Your task to perform on an android device: Open wifi settings Image 0: 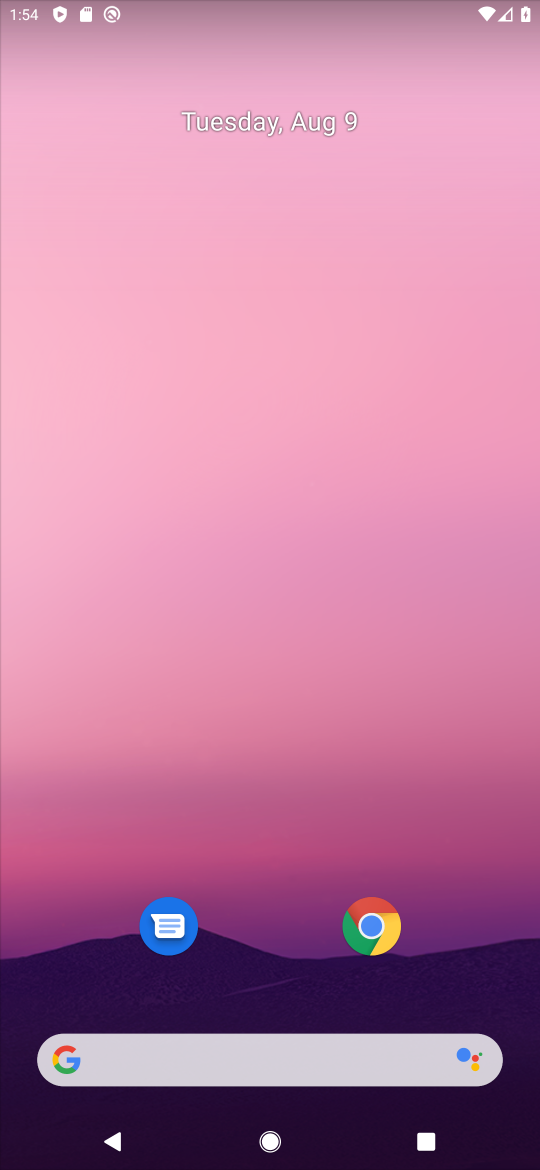
Step 0: press home button
Your task to perform on an android device: Open wifi settings Image 1: 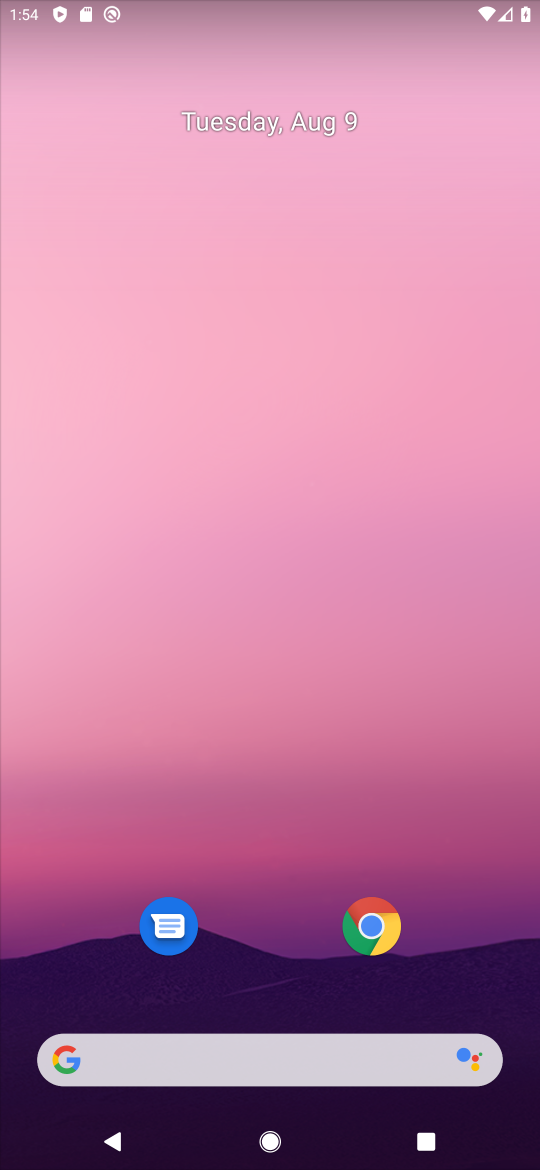
Step 1: drag from (259, 844) to (303, 204)
Your task to perform on an android device: Open wifi settings Image 2: 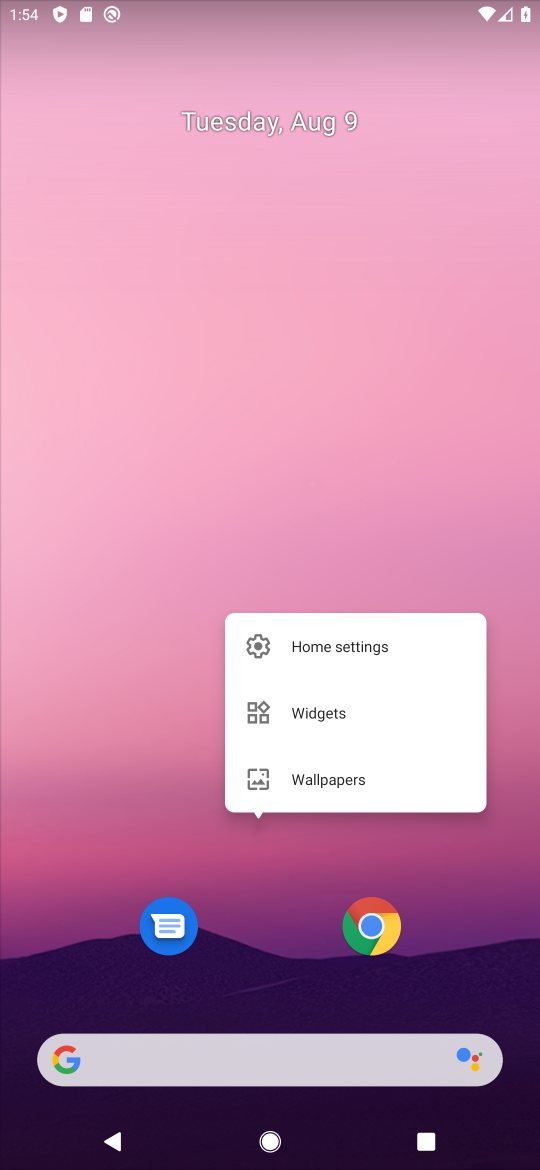
Step 2: click (168, 545)
Your task to perform on an android device: Open wifi settings Image 3: 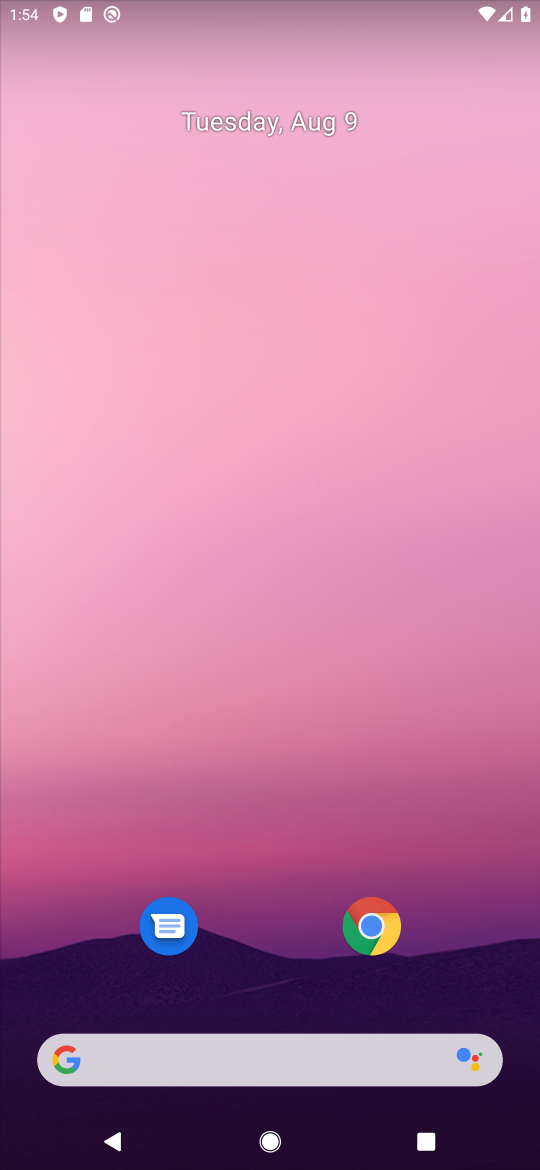
Step 3: drag from (264, 935) to (348, 51)
Your task to perform on an android device: Open wifi settings Image 4: 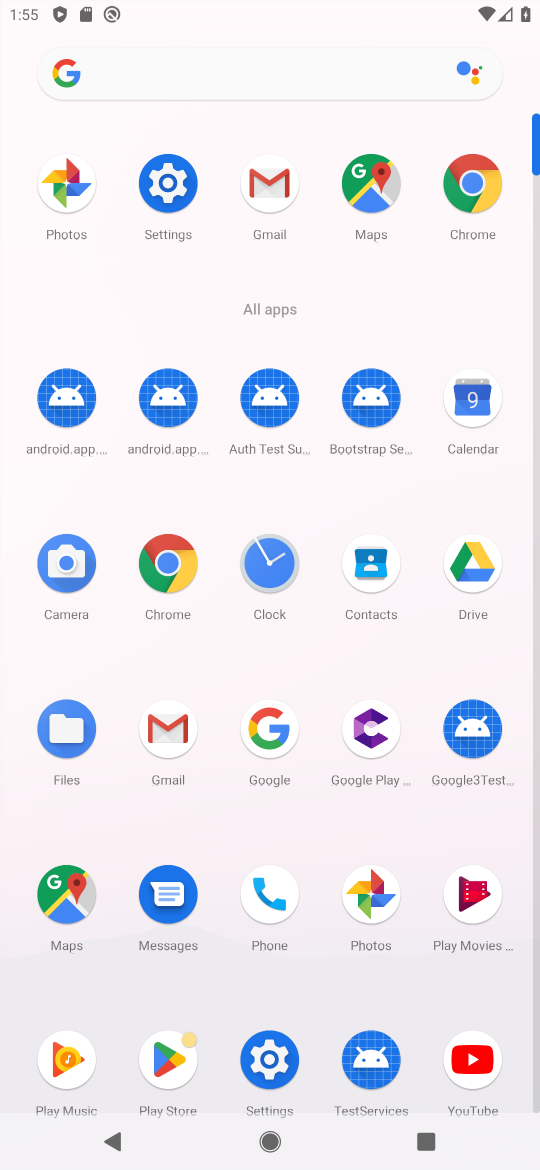
Step 4: drag from (485, 12) to (363, 580)
Your task to perform on an android device: Open wifi settings Image 5: 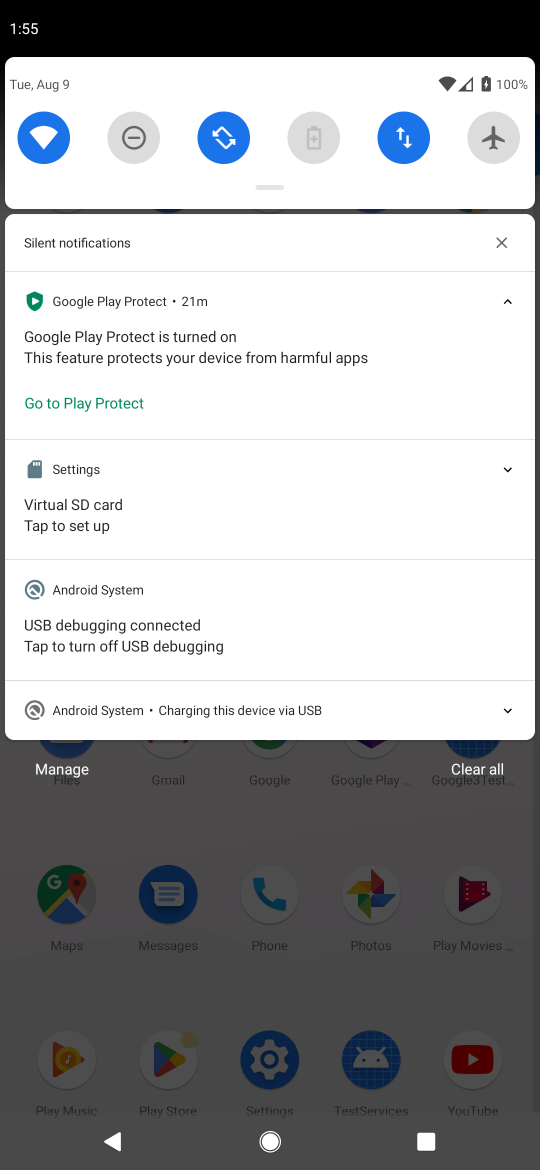
Step 5: click (39, 126)
Your task to perform on an android device: Open wifi settings Image 6: 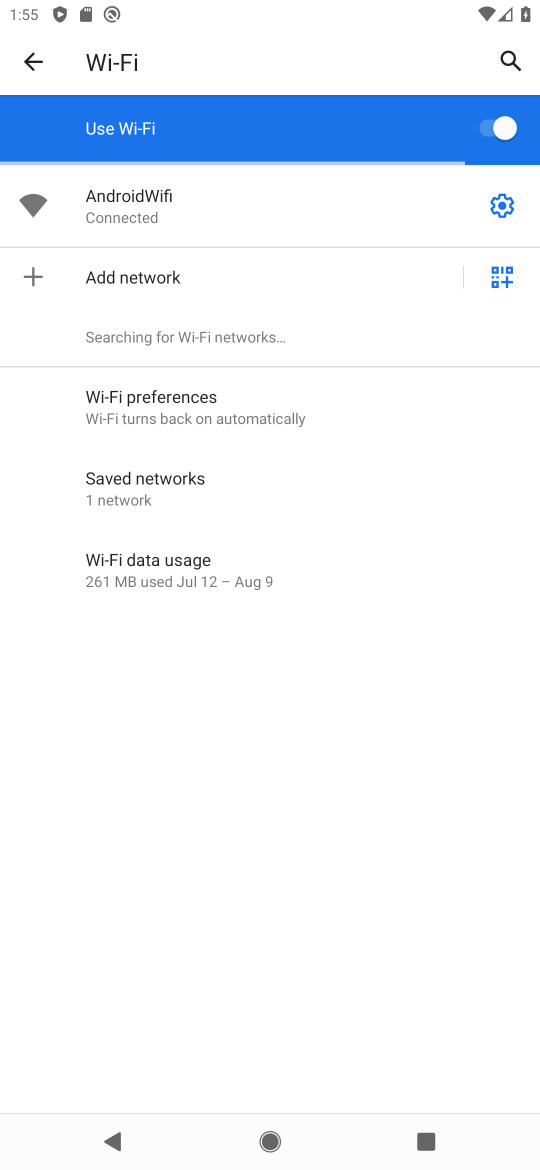
Step 6: task complete